Your task to perform on an android device: add a contact Image 0: 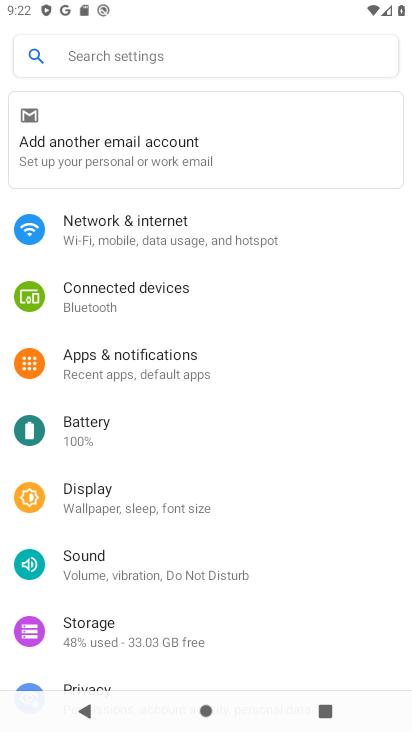
Step 0: press home button
Your task to perform on an android device: add a contact Image 1: 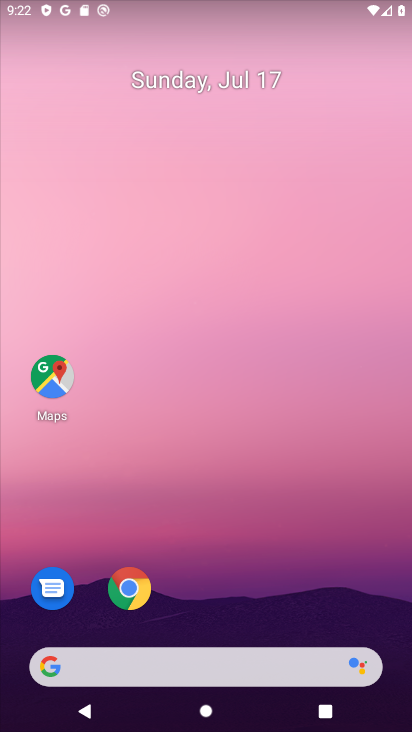
Step 1: drag from (190, 295) to (186, 73)
Your task to perform on an android device: add a contact Image 2: 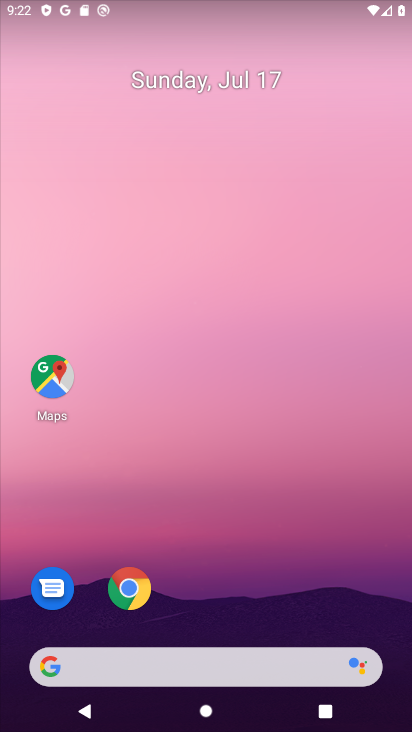
Step 2: drag from (288, 627) to (279, 110)
Your task to perform on an android device: add a contact Image 3: 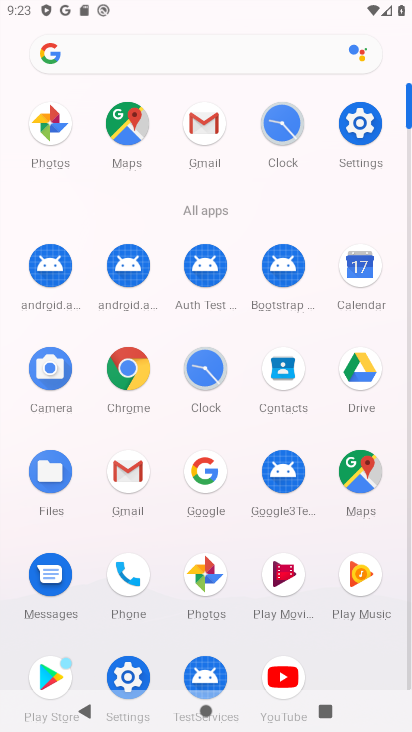
Step 3: click (275, 384)
Your task to perform on an android device: add a contact Image 4: 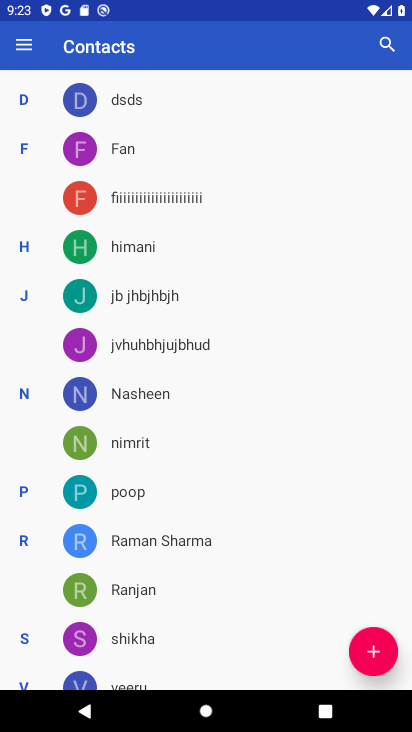
Step 4: click (385, 641)
Your task to perform on an android device: add a contact Image 5: 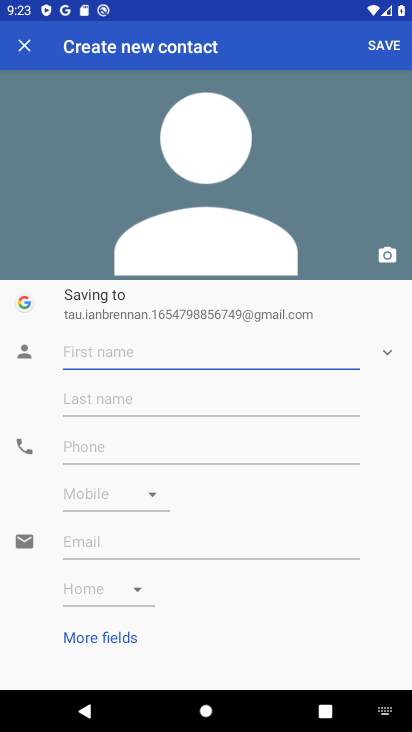
Step 5: click (201, 344)
Your task to perform on an android device: add a contact Image 6: 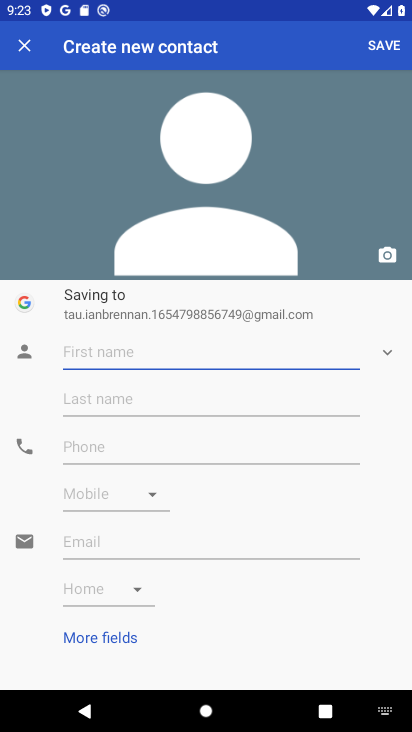
Step 6: type "xkjccnbkjk"
Your task to perform on an android device: add a contact Image 7: 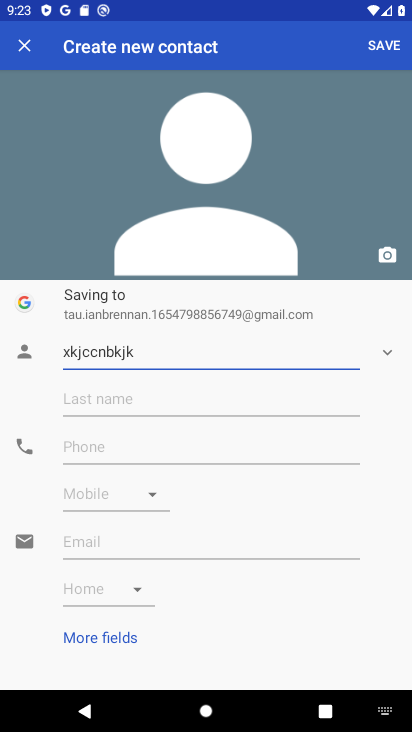
Step 7: click (194, 454)
Your task to perform on an android device: add a contact Image 8: 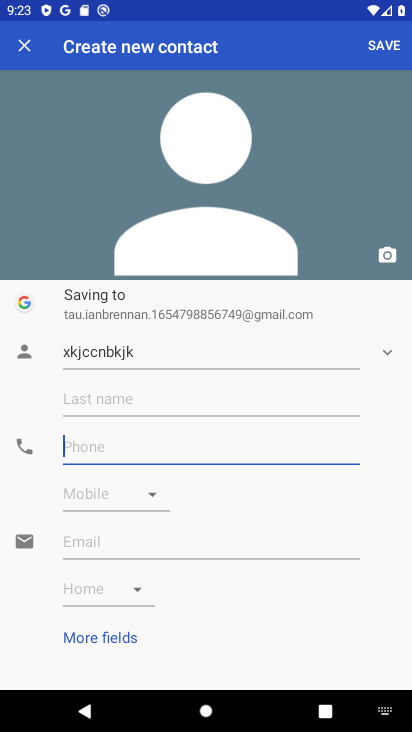
Step 8: type "9828429"
Your task to perform on an android device: add a contact Image 9: 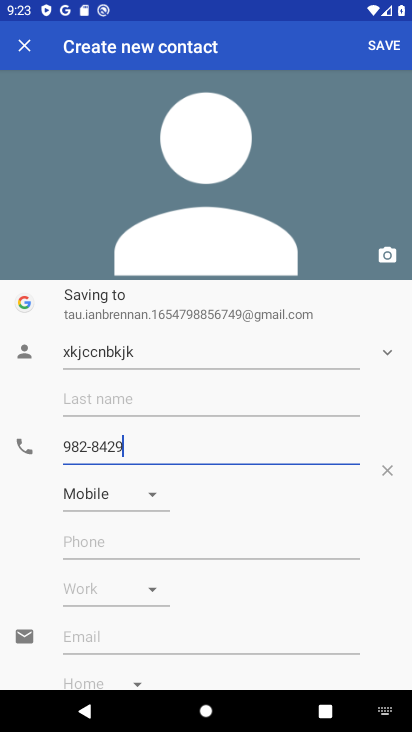
Step 9: click (383, 49)
Your task to perform on an android device: add a contact Image 10: 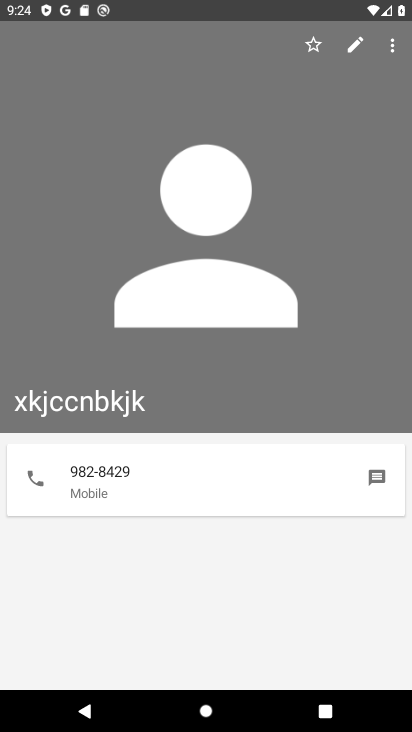
Step 10: task complete